Your task to perform on an android device: delete browsing data in the chrome app Image 0: 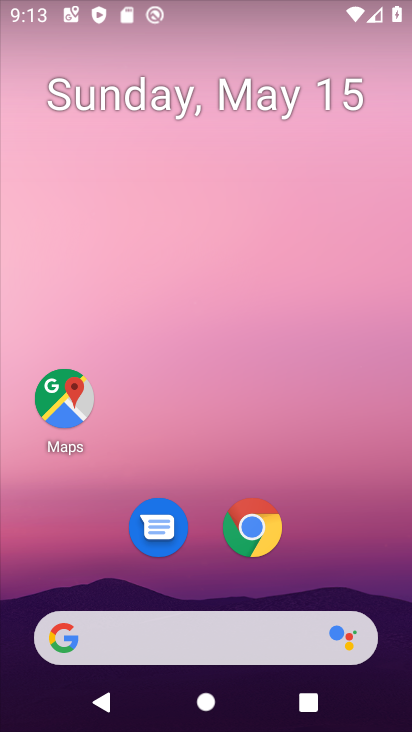
Step 0: click (248, 537)
Your task to perform on an android device: delete browsing data in the chrome app Image 1: 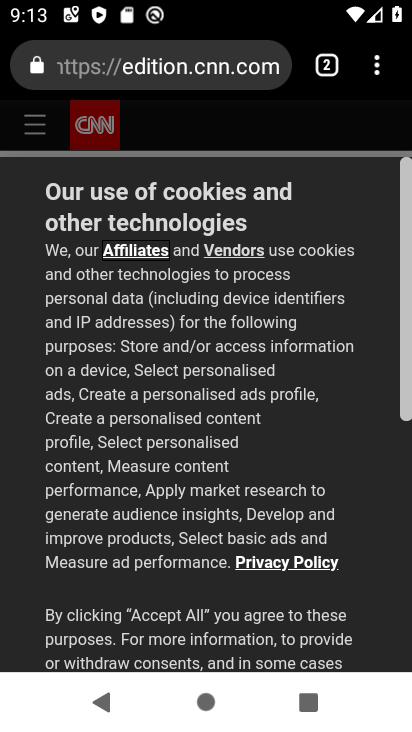
Step 1: click (377, 79)
Your task to perform on an android device: delete browsing data in the chrome app Image 2: 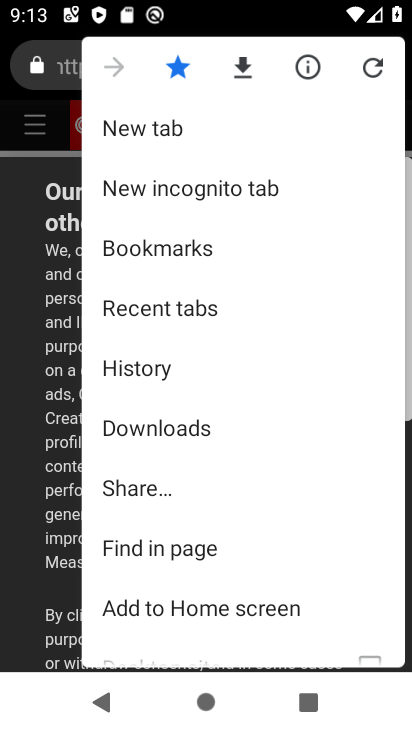
Step 2: click (237, 375)
Your task to perform on an android device: delete browsing data in the chrome app Image 3: 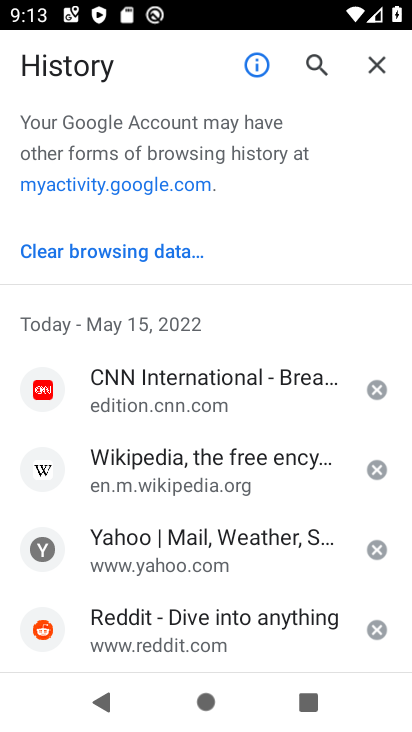
Step 3: click (165, 257)
Your task to perform on an android device: delete browsing data in the chrome app Image 4: 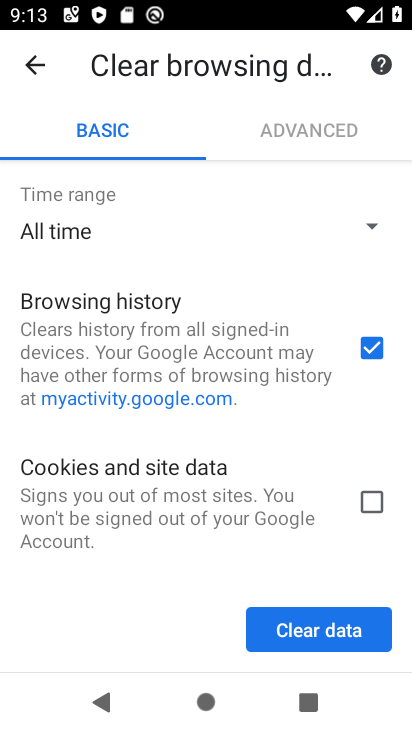
Step 4: click (331, 641)
Your task to perform on an android device: delete browsing data in the chrome app Image 5: 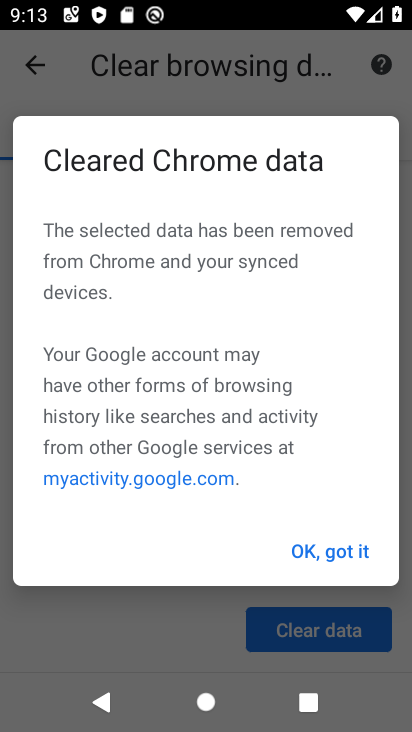
Step 5: click (337, 542)
Your task to perform on an android device: delete browsing data in the chrome app Image 6: 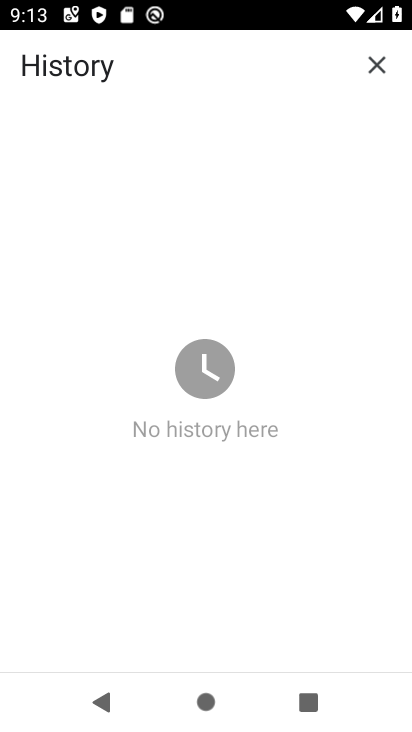
Step 6: task complete